Your task to perform on an android device: Open the map Image 0: 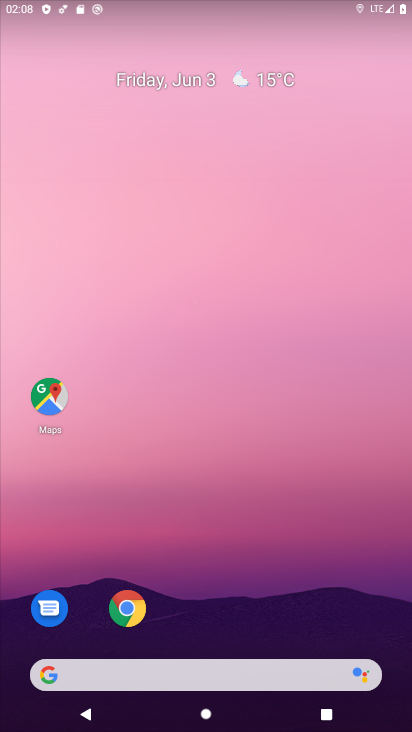
Step 0: click (55, 395)
Your task to perform on an android device: Open the map Image 1: 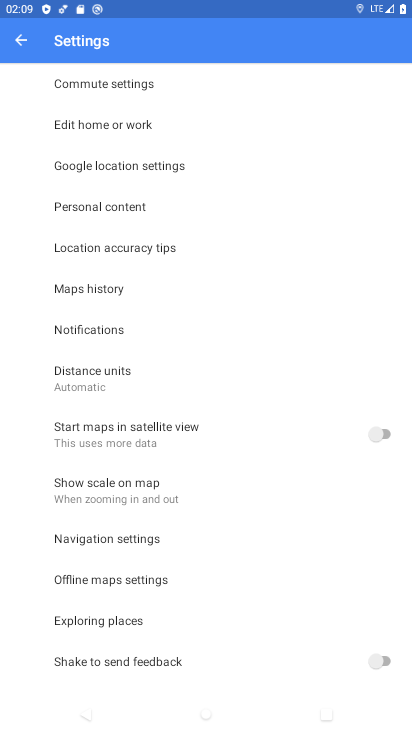
Step 1: task complete